Your task to perform on an android device: Check my email Image 0: 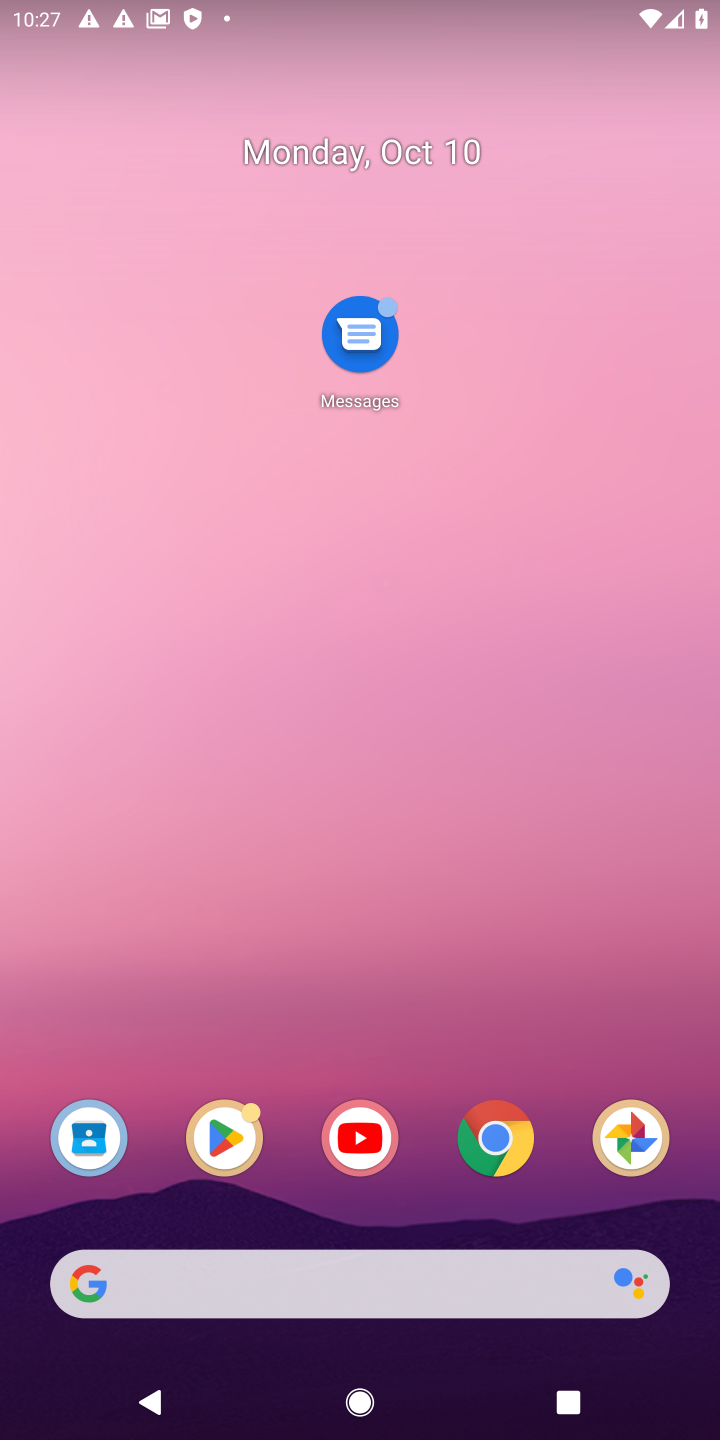
Step 0: drag from (349, 1297) to (341, 230)
Your task to perform on an android device: Check my email Image 1: 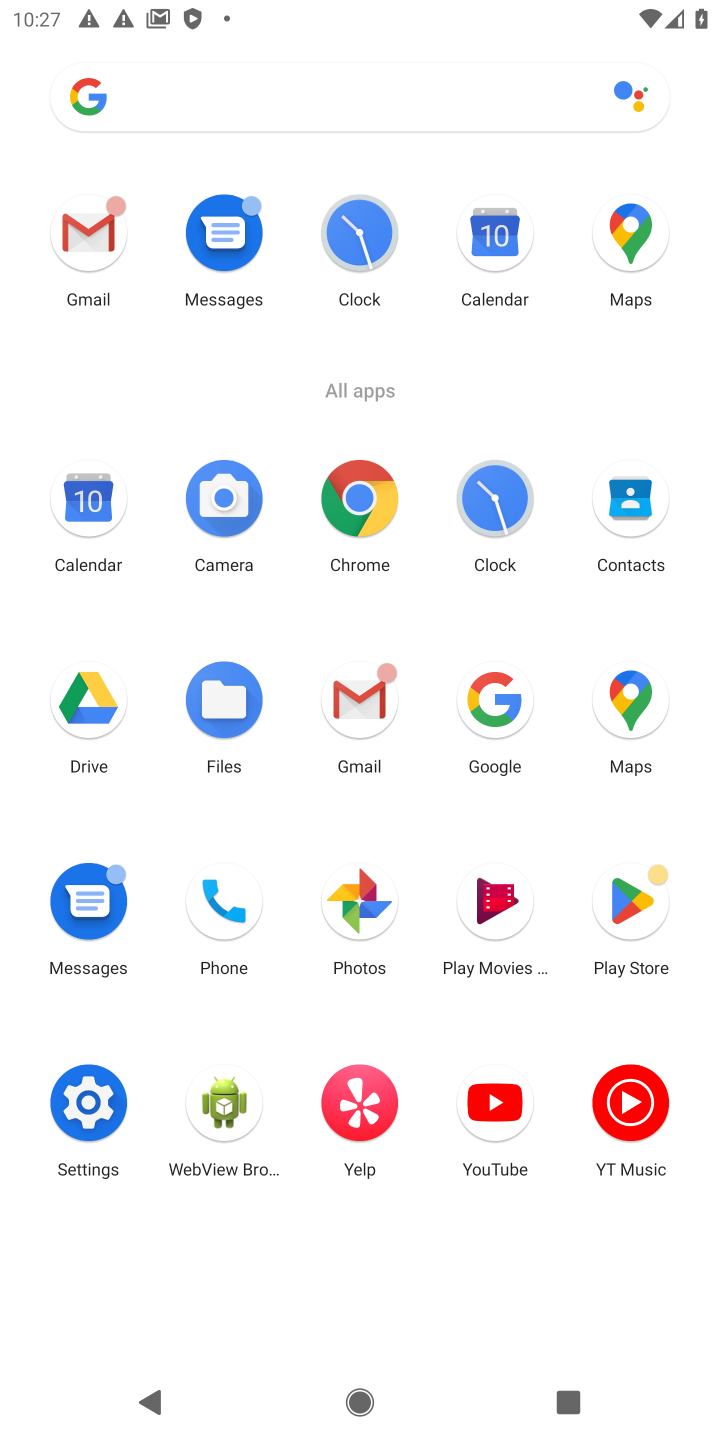
Step 1: click (358, 697)
Your task to perform on an android device: Check my email Image 2: 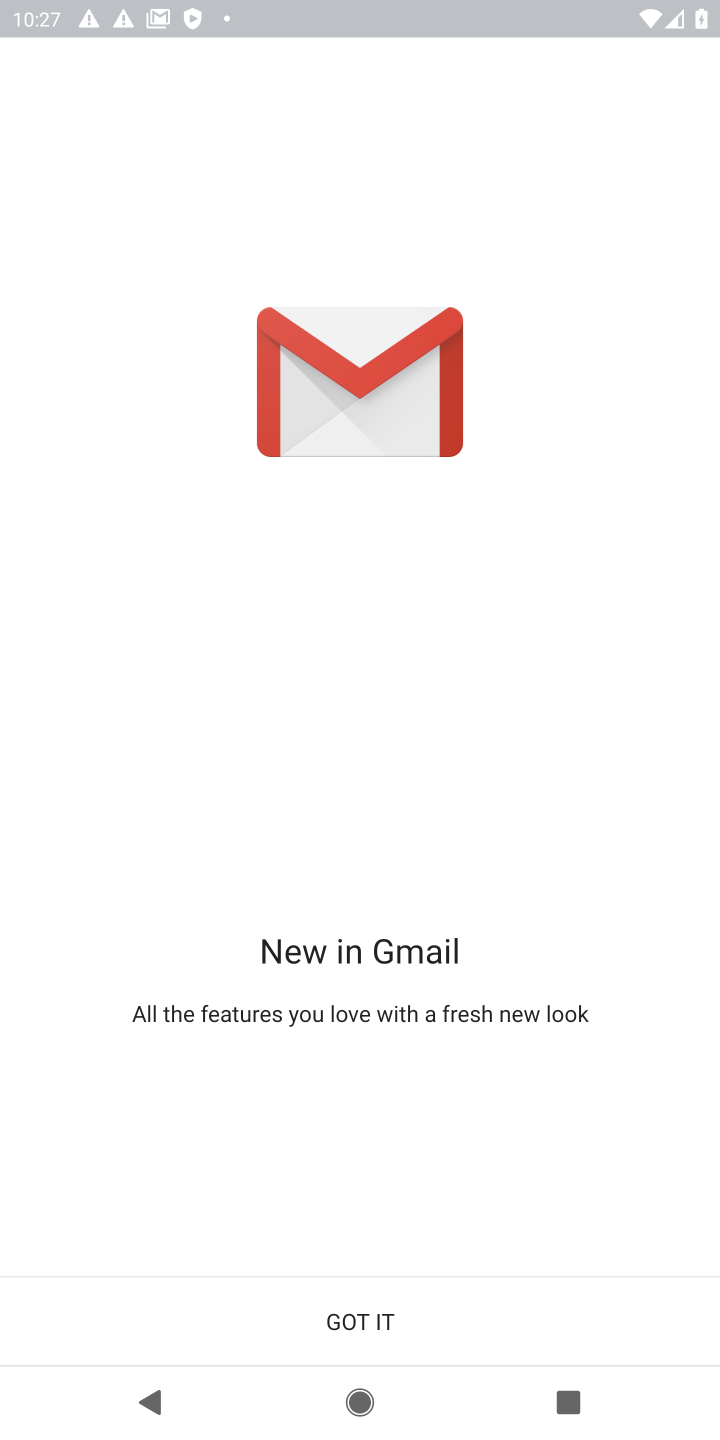
Step 2: click (286, 1311)
Your task to perform on an android device: Check my email Image 3: 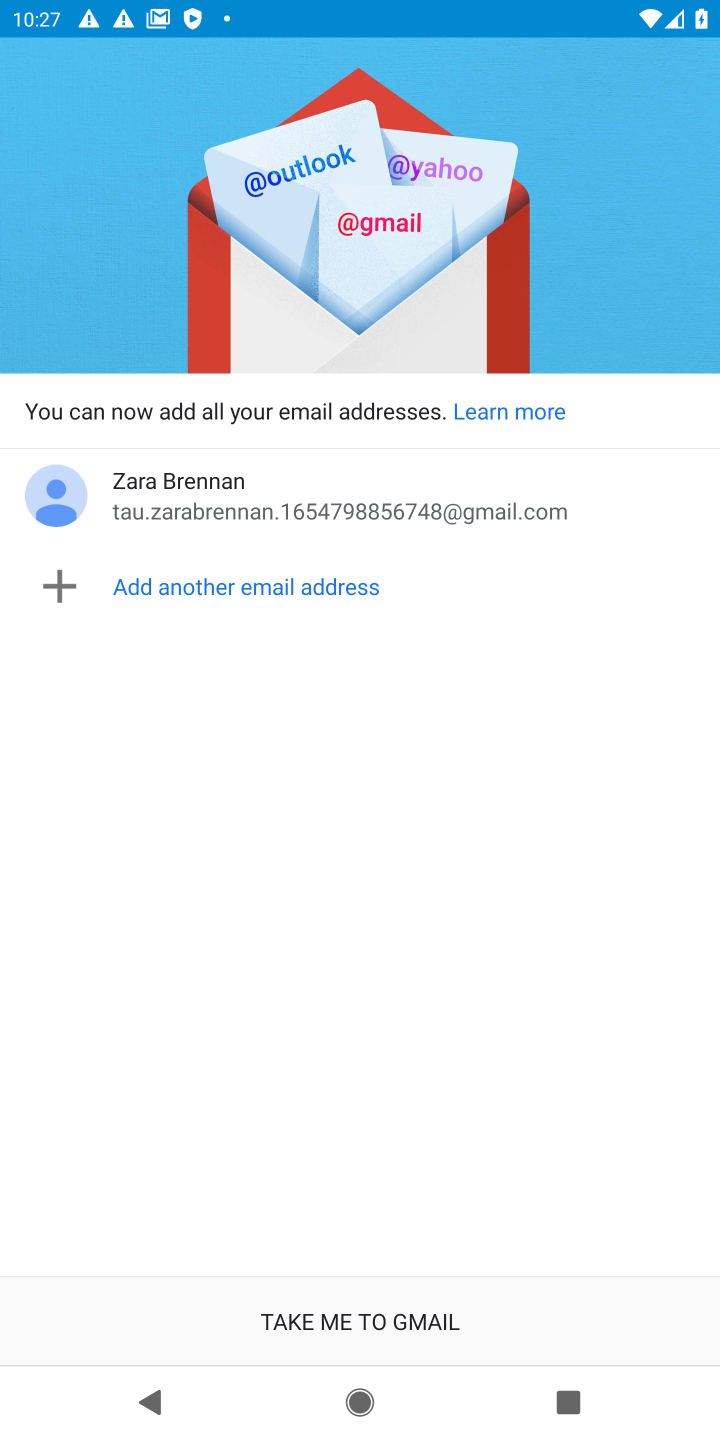
Step 3: click (379, 1309)
Your task to perform on an android device: Check my email Image 4: 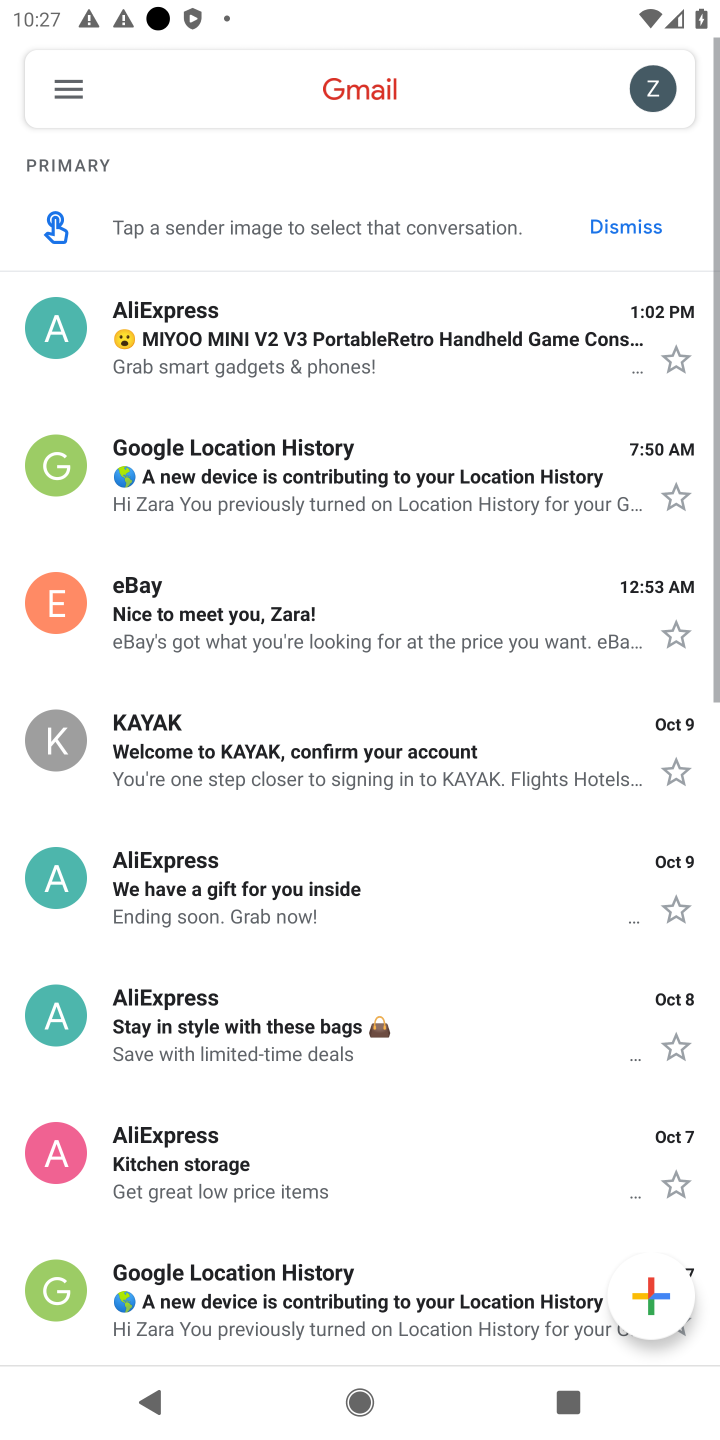
Step 4: click (379, 1309)
Your task to perform on an android device: Check my email Image 5: 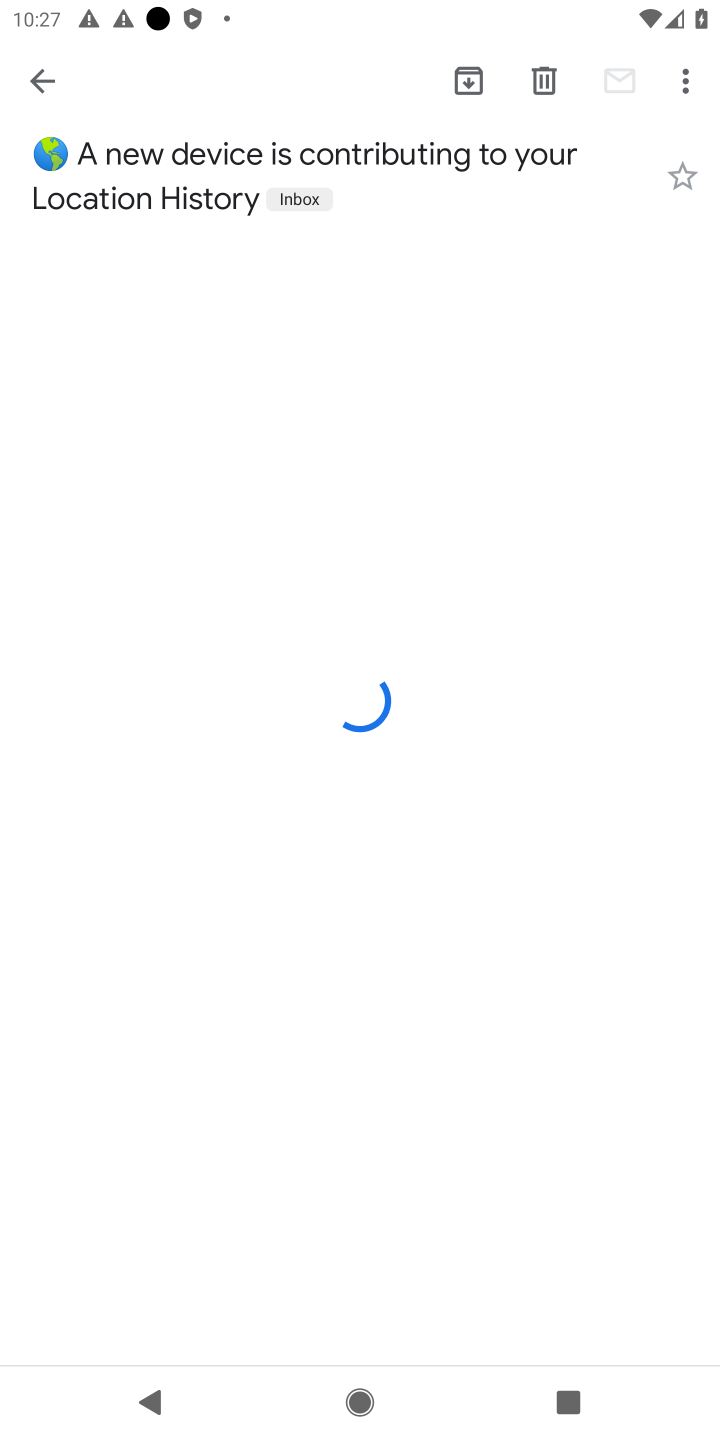
Step 5: click (378, 660)
Your task to perform on an android device: Check my email Image 6: 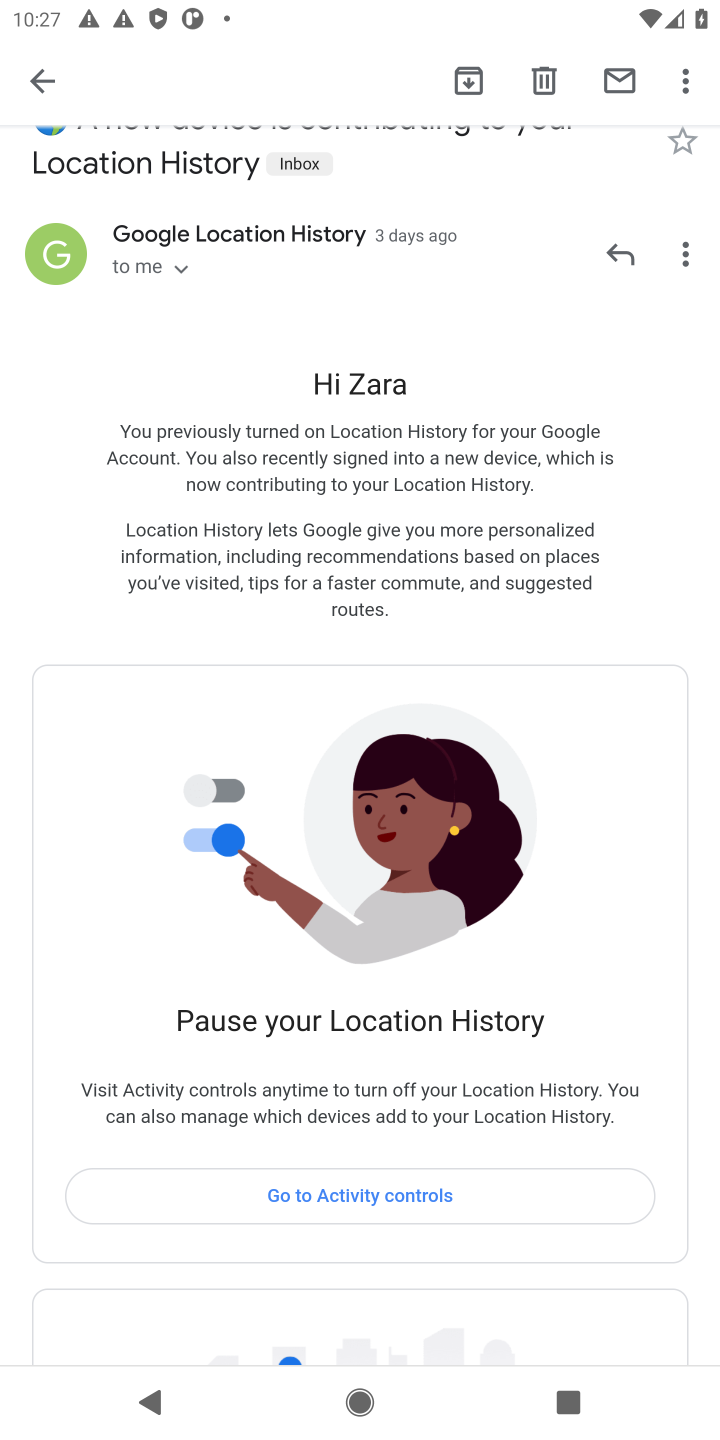
Step 6: click (38, 78)
Your task to perform on an android device: Check my email Image 7: 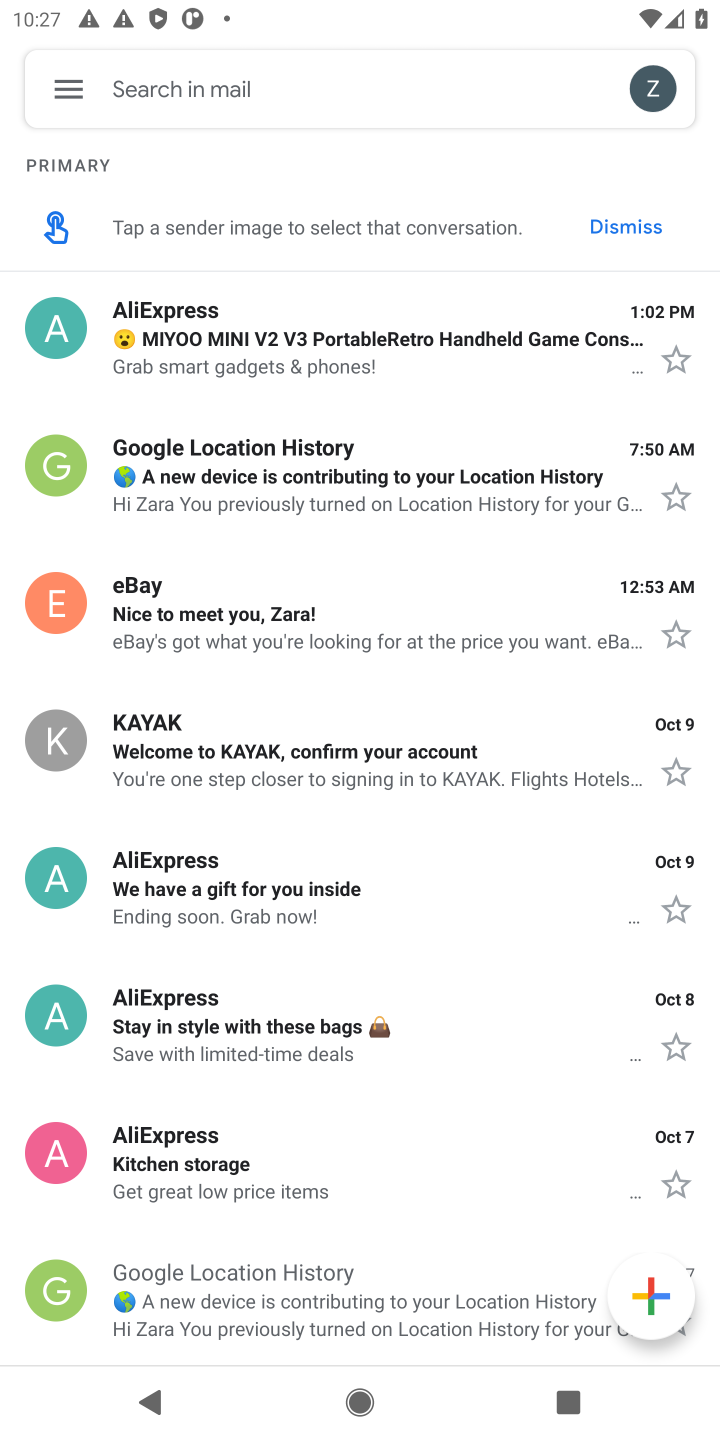
Step 7: drag from (383, 475) to (392, 242)
Your task to perform on an android device: Check my email Image 8: 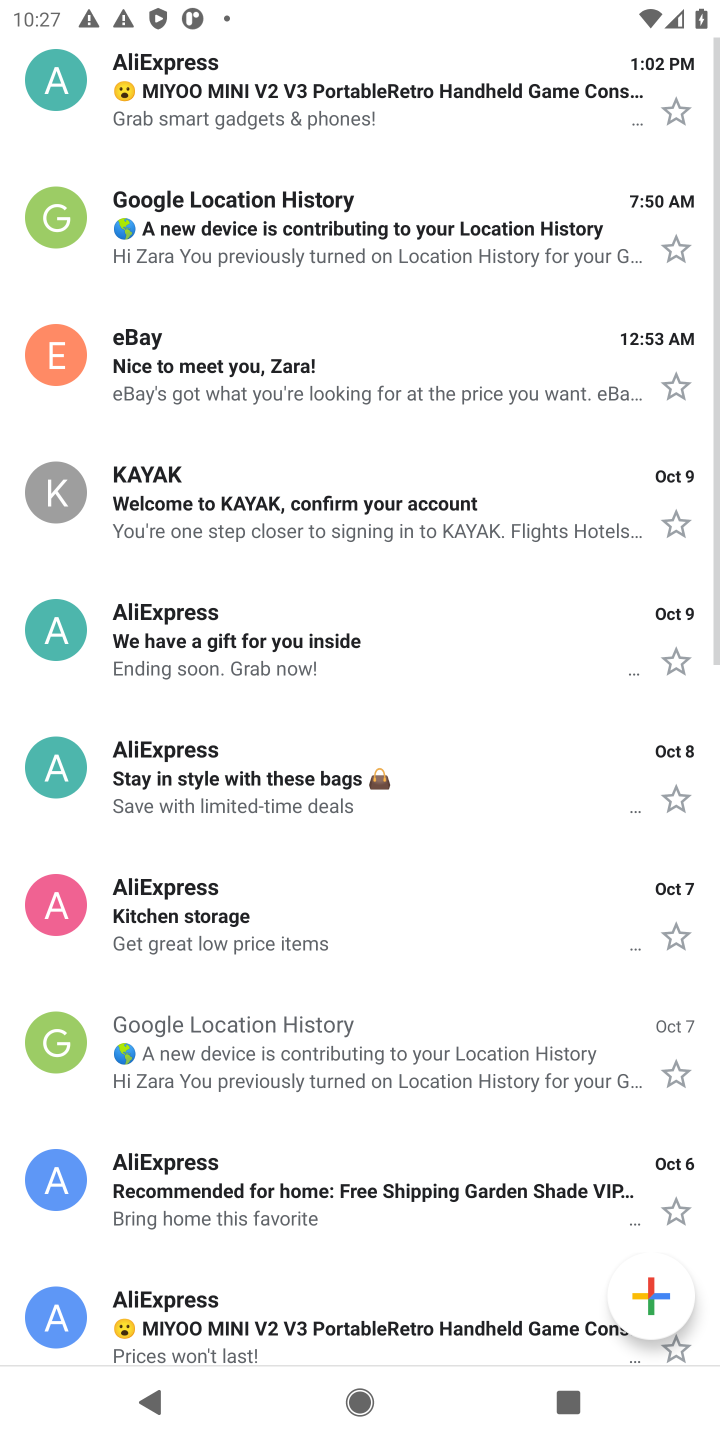
Step 8: drag from (361, 832) to (406, 690)
Your task to perform on an android device: Check my email Image 9: 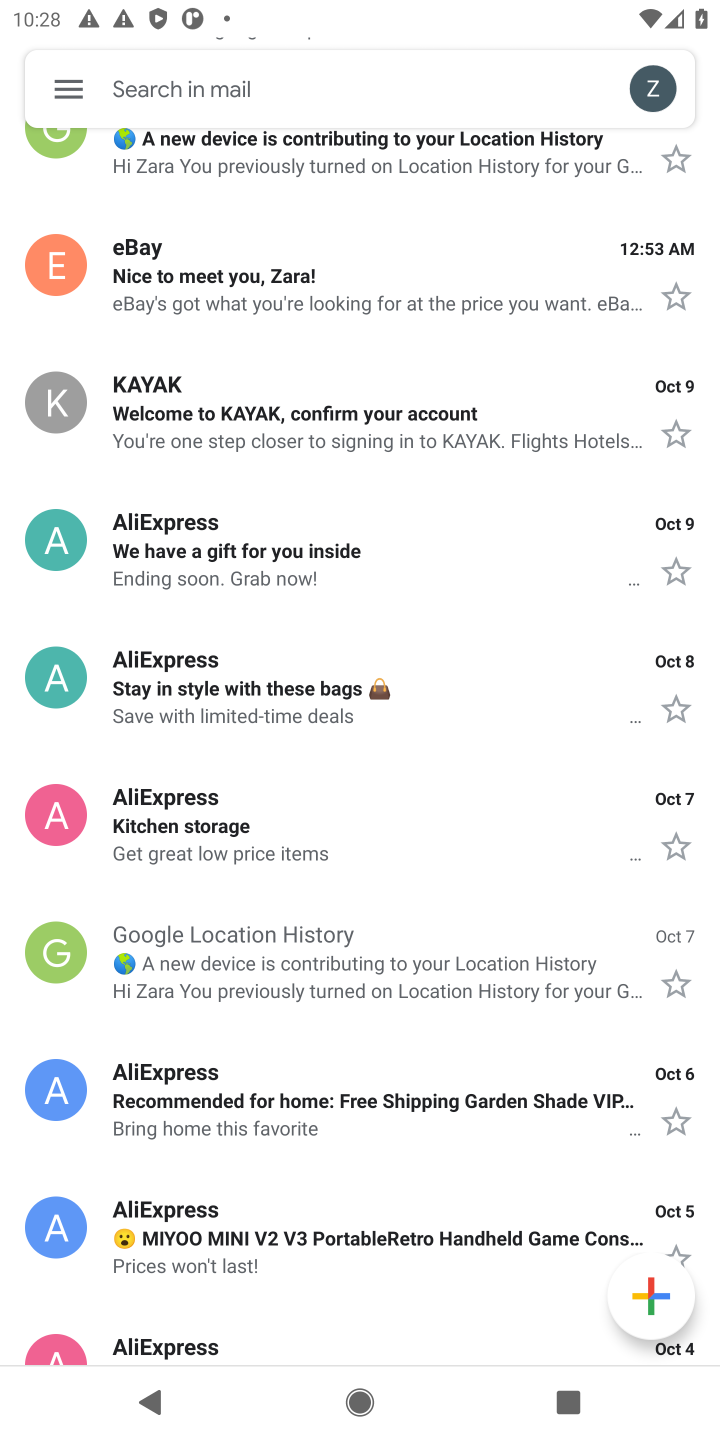
Step 9: drag from (396, 340) to (376, 764)
Your task to perform on an android device: Check my email Image 10: 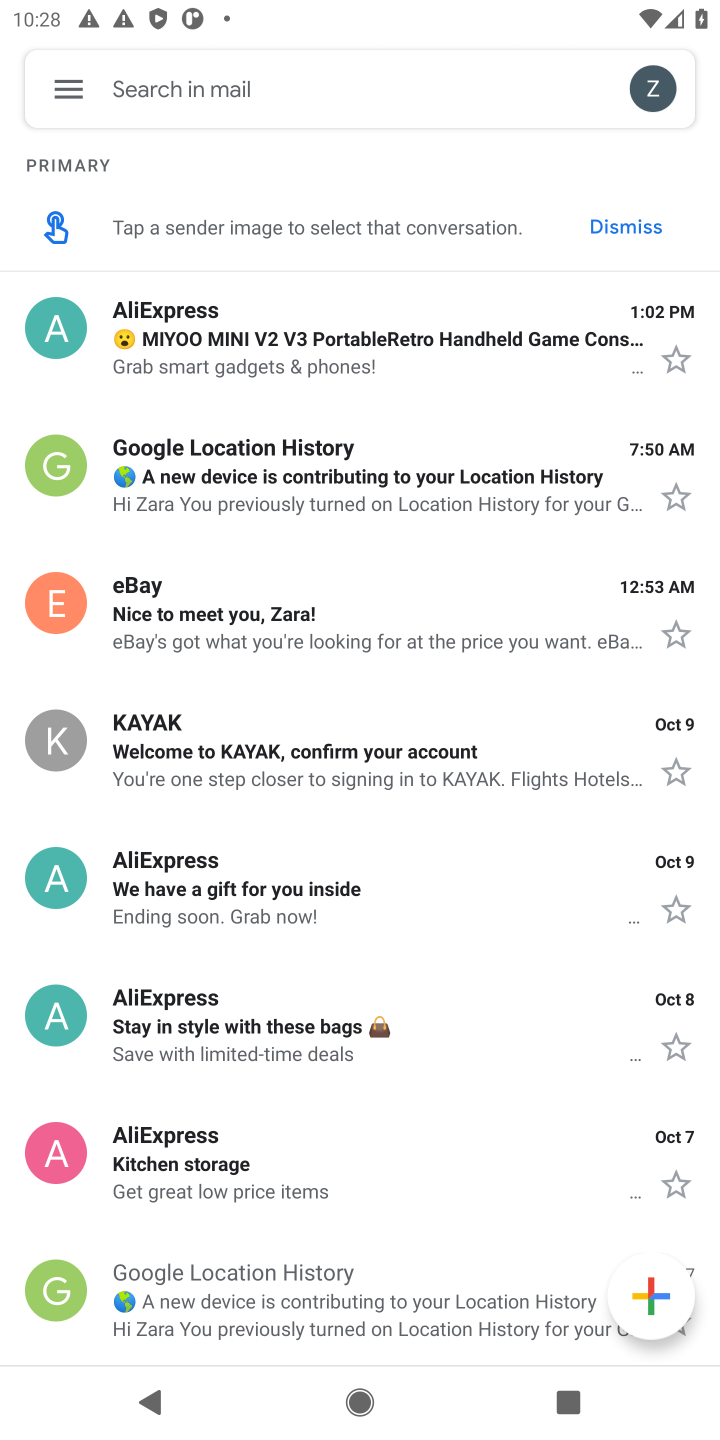
Step 10: drag from (398, 483) to (387, 628)
Your task to perform on an android device: Check my email Image 11: 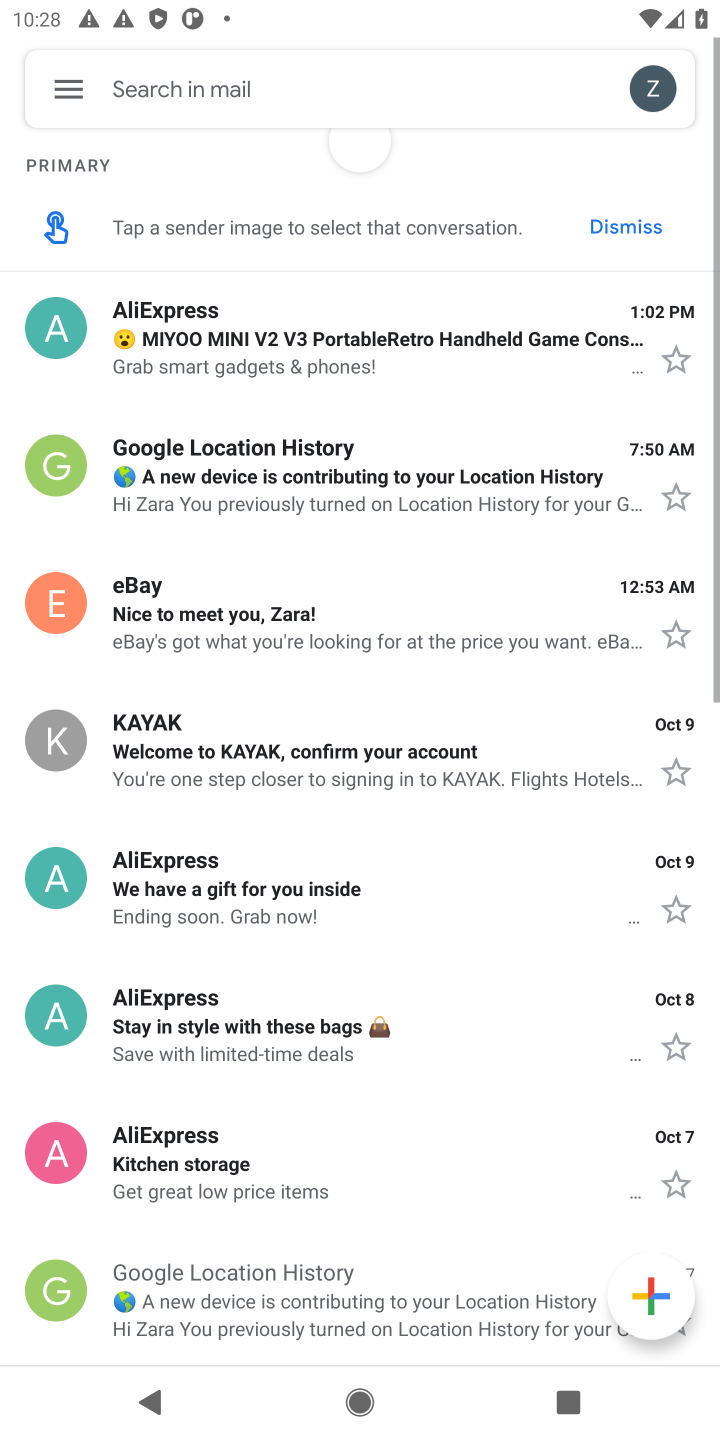
Step 11: click (348, 351)
Your task to perform on an android device: Check my email Image 12: 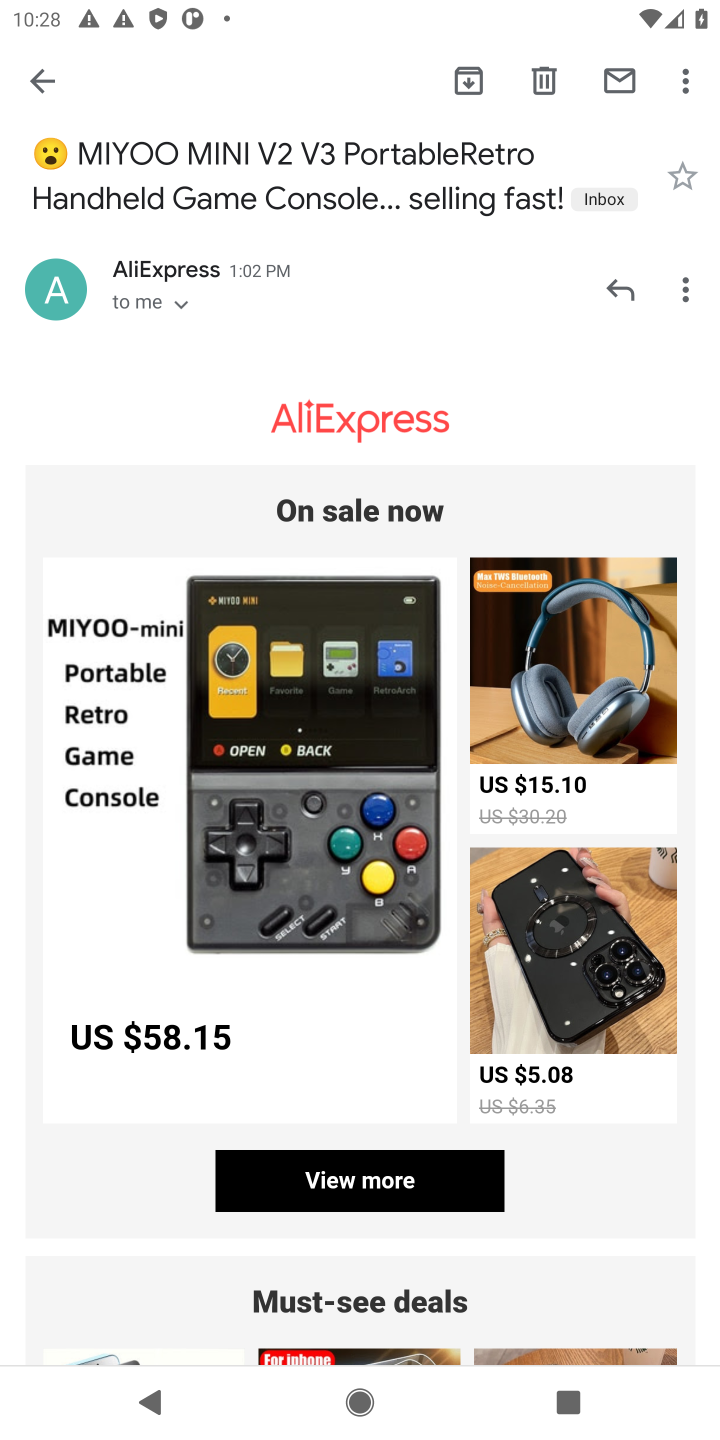
Step 12: drag from (329, 1004) to (374, 545)
Your task to perform on an android device: Check my email Image 13: 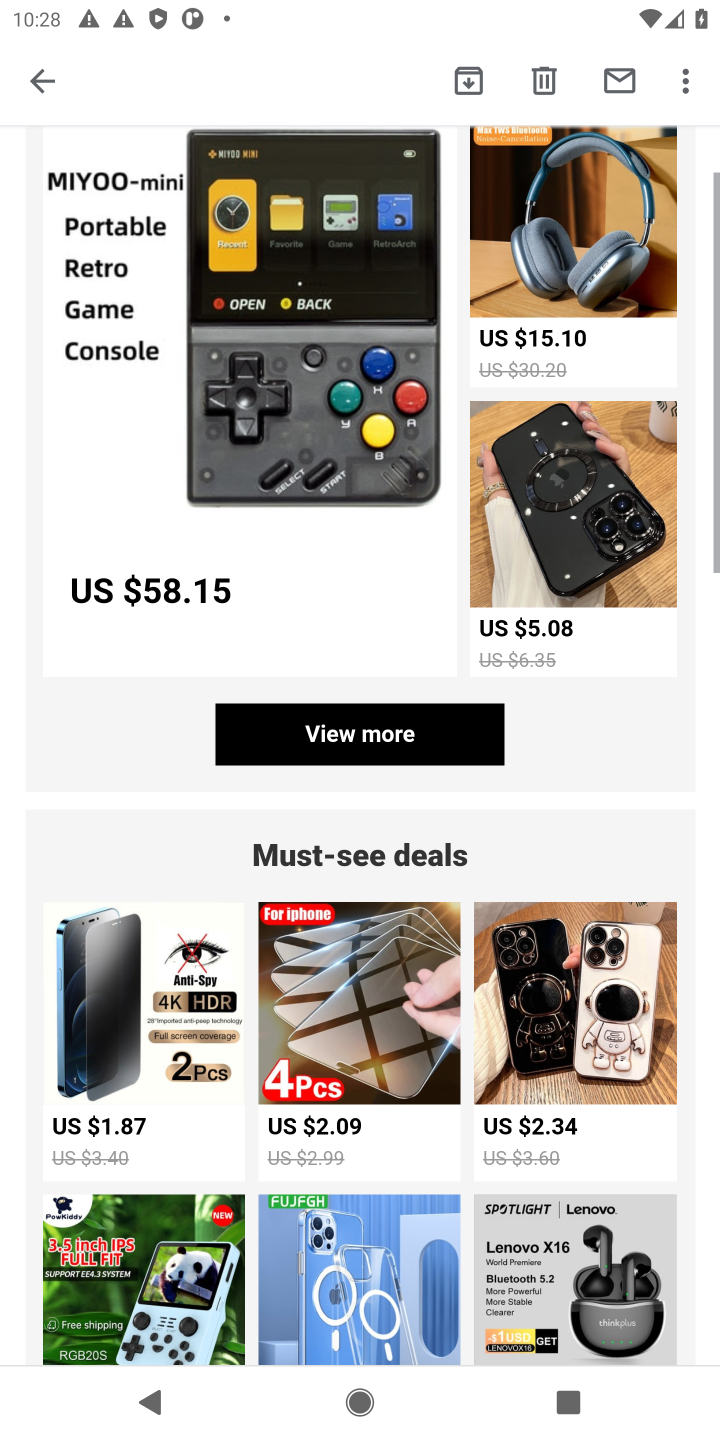
Step 13: click (41, 81)
Your task to perform on an android device: Check my email Image 14: 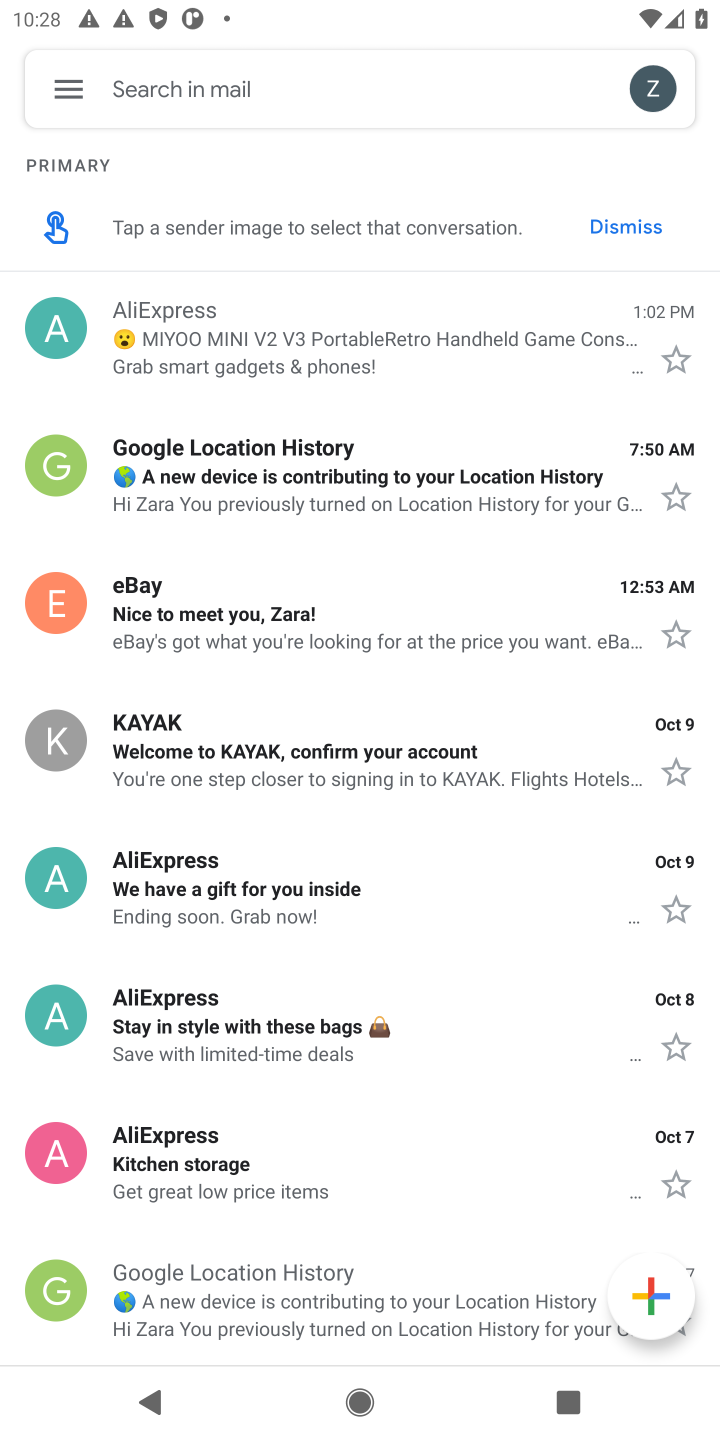
Step 14: task complete